Your task to perform on an android device: open sync settings in chrome Image 0: 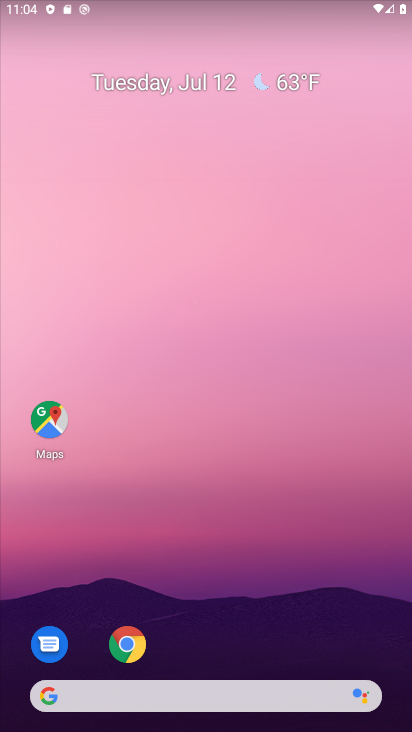
Step 0: click (127, 645)
Your task to perform on an android device: open sync settings in chrome Image 1: 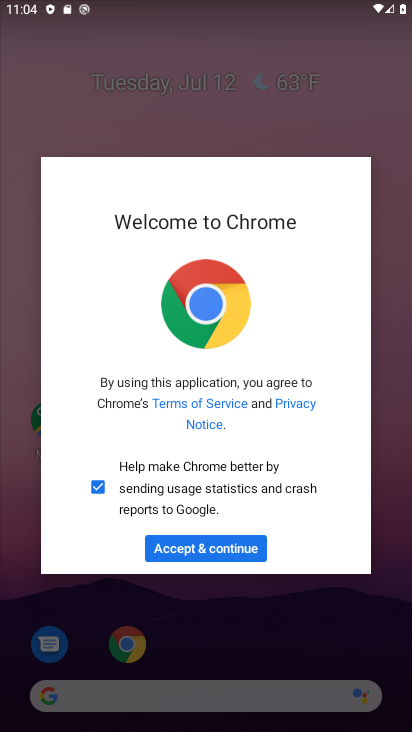
Step 1: click (184, 546)
Your task to perform on an android device: open sync settings in chrome Image 2: 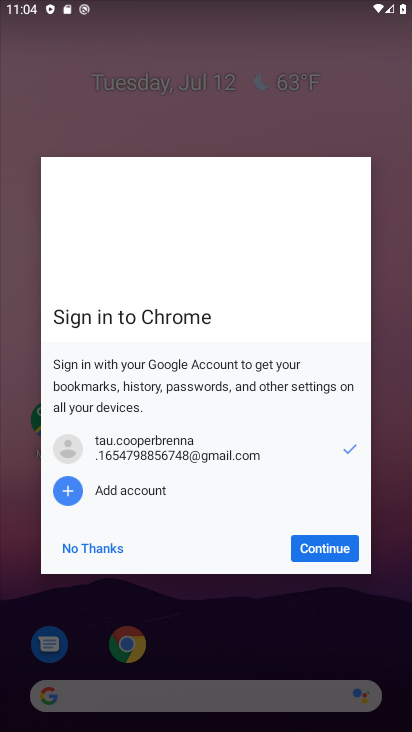
Step 2: click (329, 546)
Your task to perform on an android device: open sync settings in chrome Image 3: 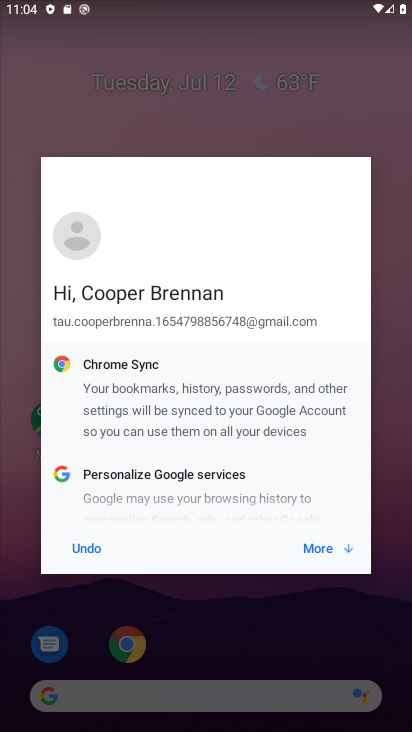
Step 3: click (329, 546)
Your task to perform on an android device: open sync settings in chrome Image 4: 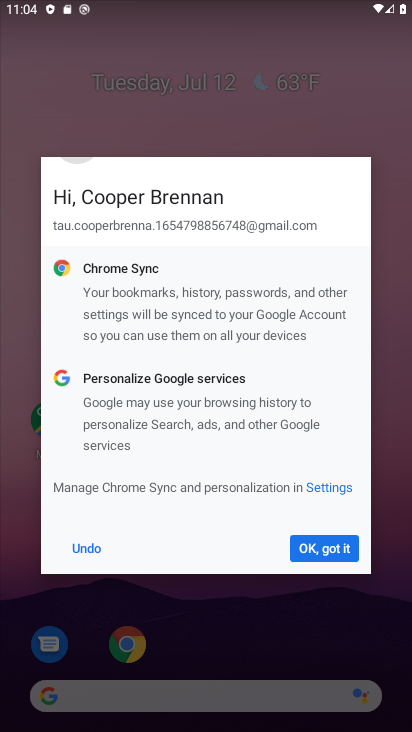
Step 4: click (329, 546)
Your task to perform on an android device: open sync settings in chrome Image 5: 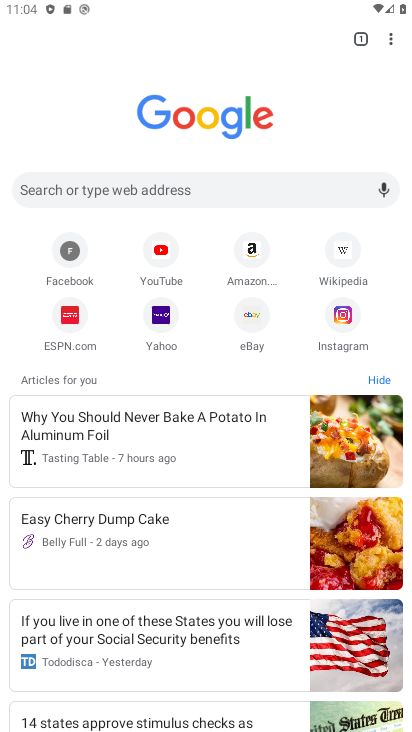
Step 5: click (388, 34)
Your task to perform on an android device: open sync settings in chrome Image 6: 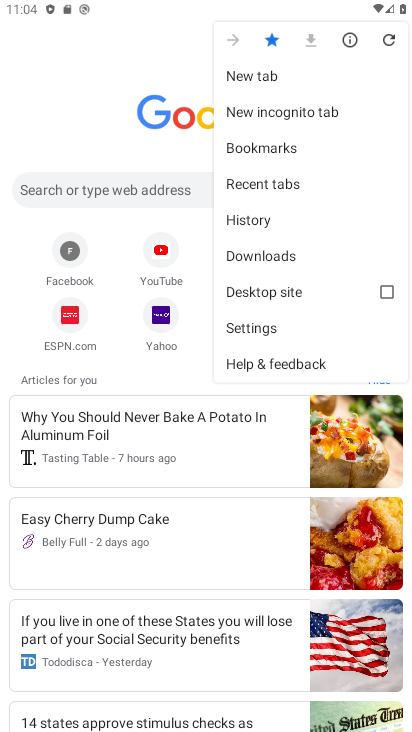
Step 6: click (261, 333)
Your task to perform on an android device: open sync settings in chrome Image 7: 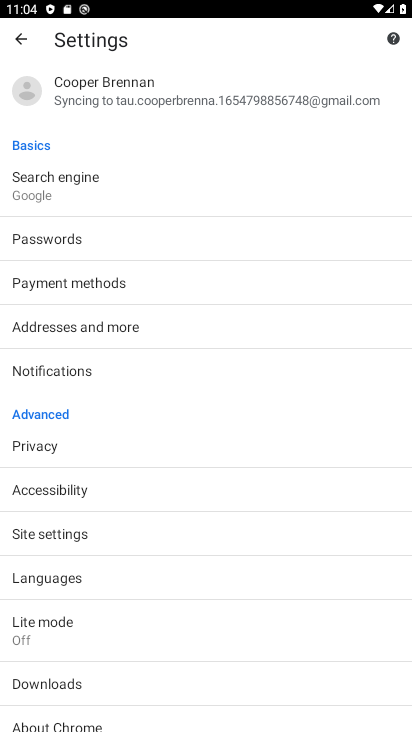
Step 7: click (61, 531)
Your task to perform on an android device: open sync settings in chrome Image 8: 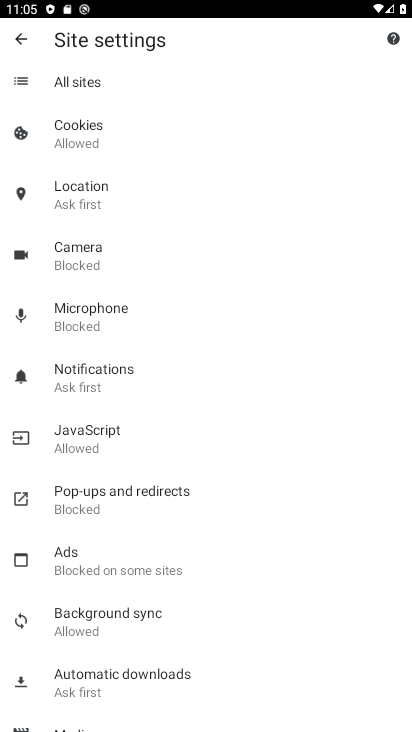
Step 8: click (83, 613)
Your task to perform on an android device: open sync settings in chrome Image 9: 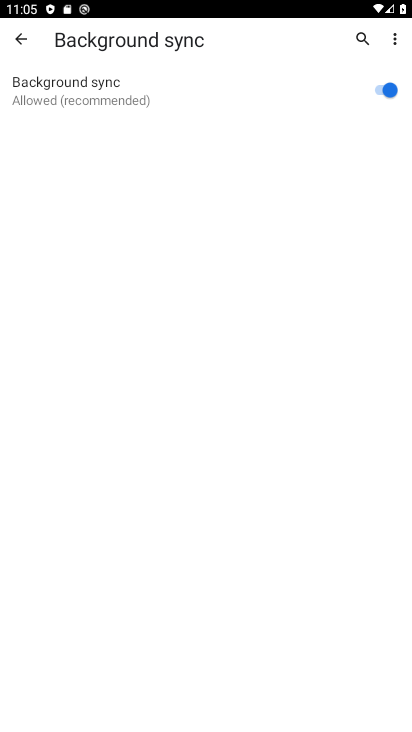
Step 9: task complete